Your task to perform on an android device: Open Android settings Image 0: 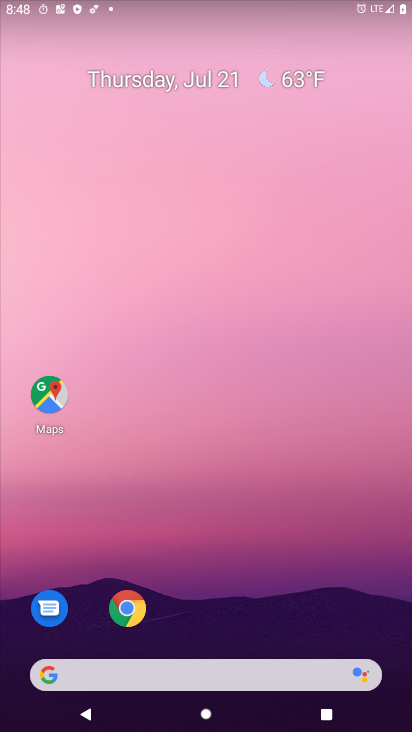
Step 0: press home button
Your task to perform on an android device: Open Android settings Image 1: 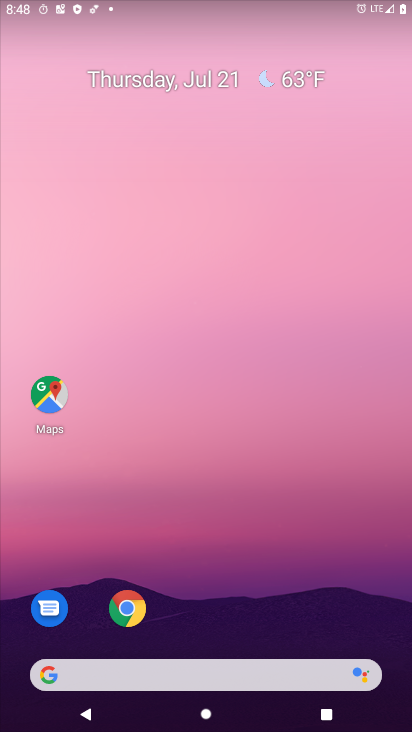
Step 1: drag from (250, 633) to (406, 48)
Your task to perform on an android device: Open Android settings Image 2: 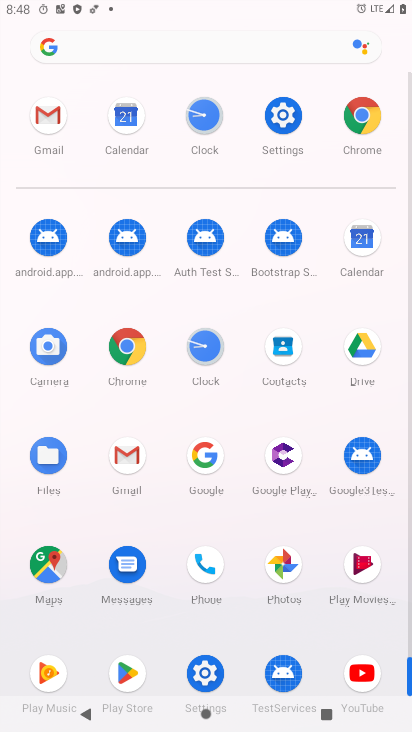
Step 2: click (284, 105)
Your task to perform on an android device: Open Android settings Image 3: 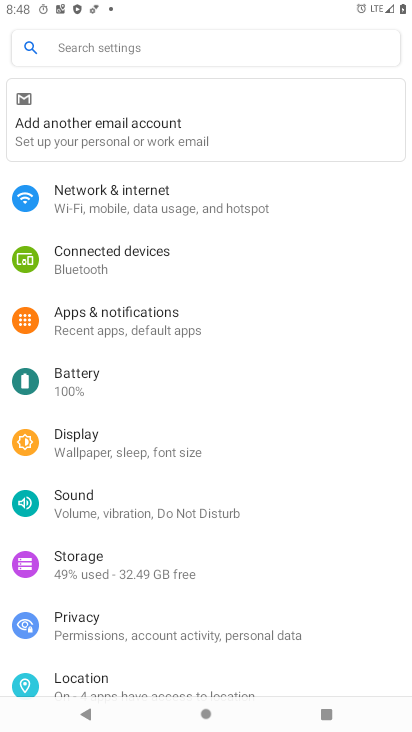
Step 3: drag from (135, 557) to (220, 35)
Your task to perform on an android device: Open Android settings Image 4: 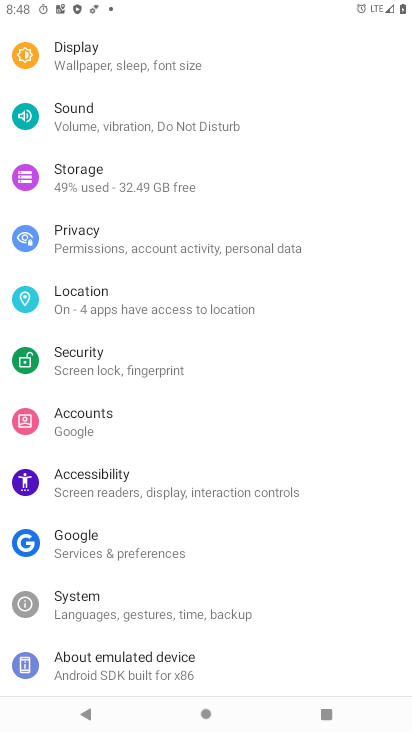
Step 4: drag from (187, 649) to (188, 396)
Your task to perform on an android device: Open Android settings Image 5: 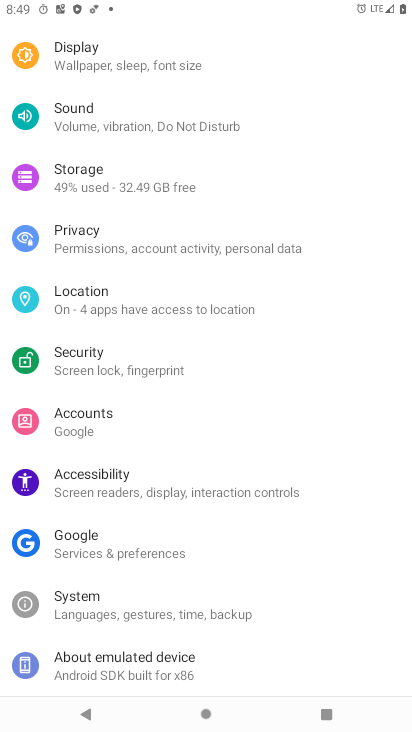
Step 5: click (111, 676)
Your task to perform on an android device: Open Android settings Image 6: 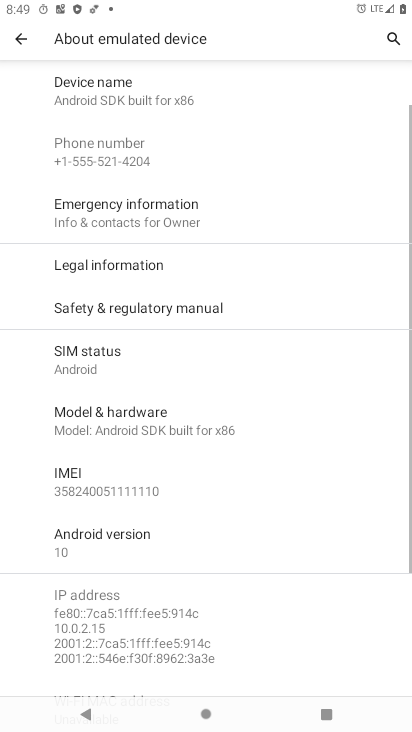
Step 6: click (150, 554)
Your task to perform on an android device: Open Android settings Image 7: 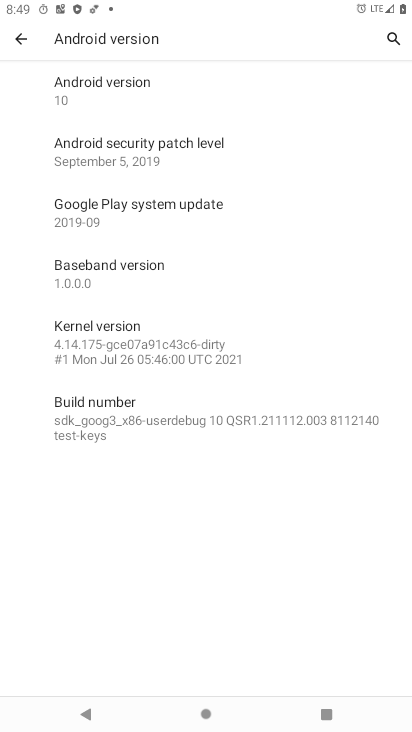
Step 7: task complete